Your task to perform on an android device: Show me productivity apps on the Play Store Image 0: 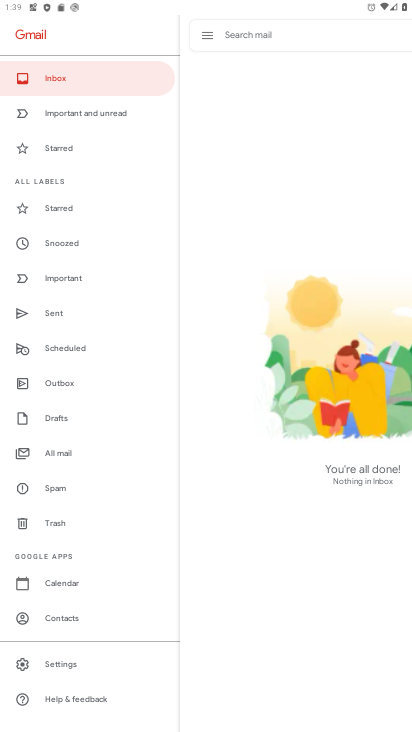
Step 0: press home button
Your task to perform on an android device: Show me productivity apps on the Play Store Image 1: 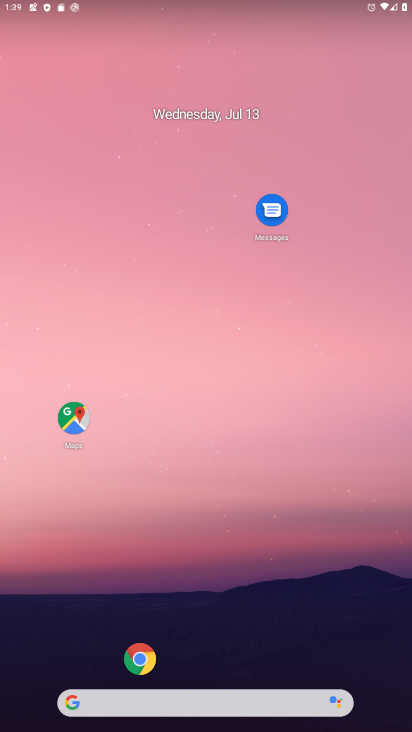
Step 1: drag from (35, 689) to (339, 103)
Your task to perform on an android device: Show me productivity apps on the Play Store Image 2: 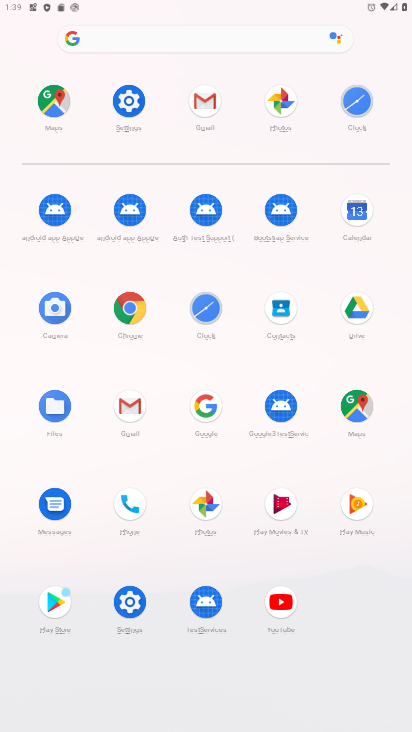
Step 2: click (57, 607)
Your task to perform on an android device: Show me productivity apps on the Play Store Image 3: 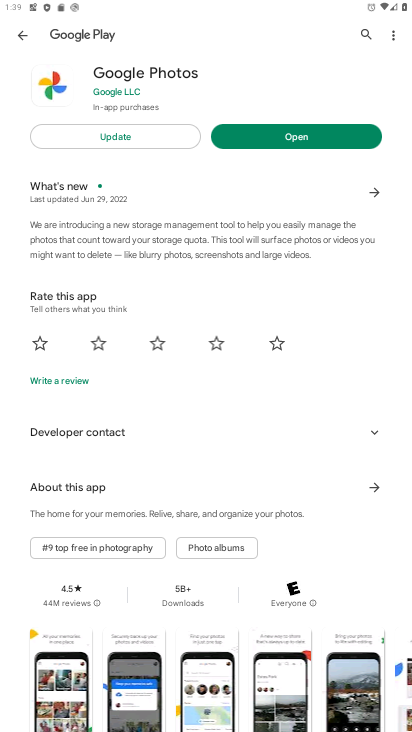
Step 3: click (28, 25)
Your task to perform on an android device: Show me productivity apps on the Play Store Image 4: 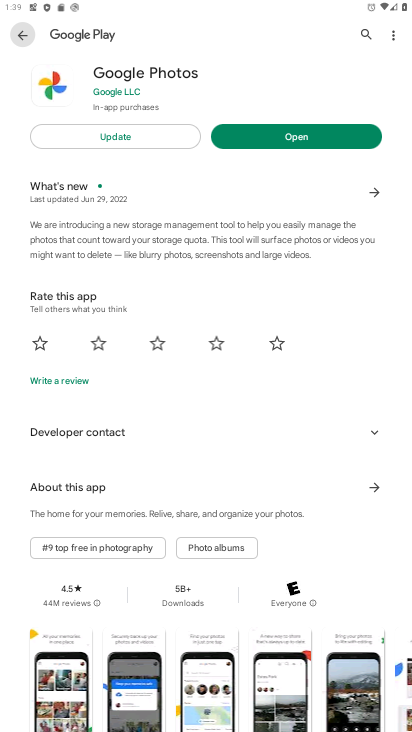
Step 4: click (6, 46)
Your task to perform on an android device: Show me productivity apps on the Play Store Image 5: 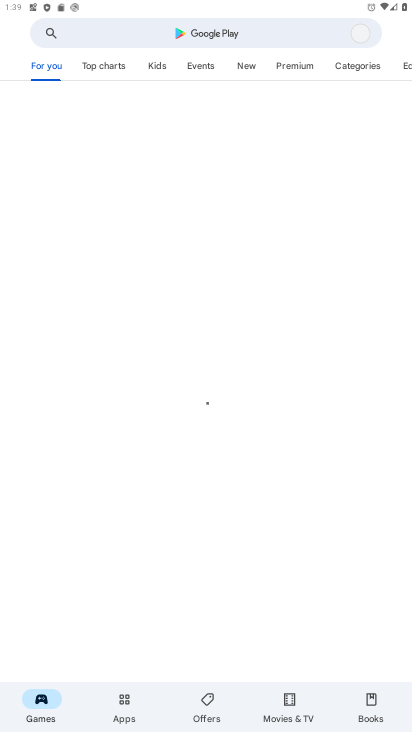
Step 5: click (16, 37)
Your task to perform on an android device: Show me productivity apps on the Play Store Image 6: 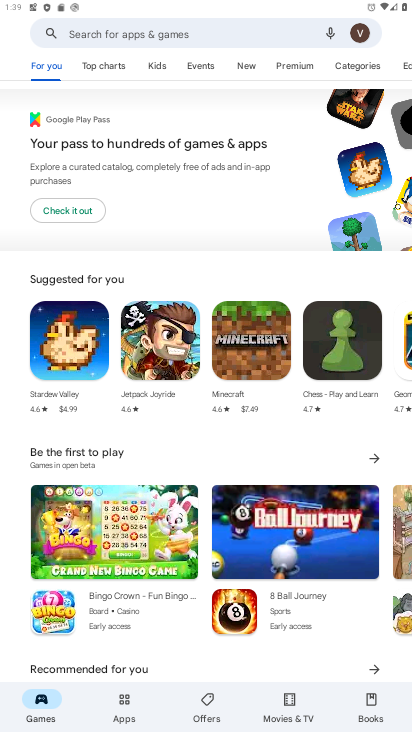
Step 6: click (101, 43)
Your task to perform on an android device: Show me productivity apps on the Play Store Image 7: 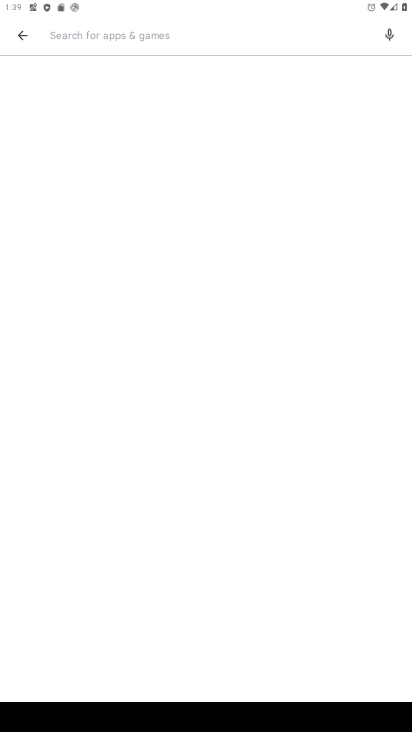
Step 7: type " productivity apps "
Your task to perform on an android device: Show me productivity apps on the Play Store Image 8: 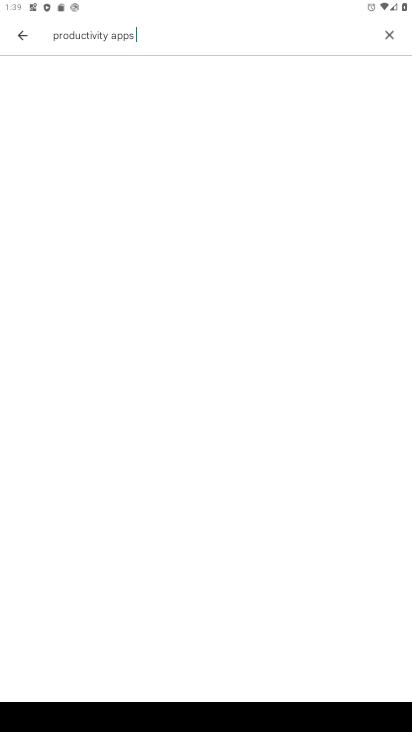
Step 8: type ""
Your task to perform on an android device: Show me productivity apps on the Play Store Image 9: 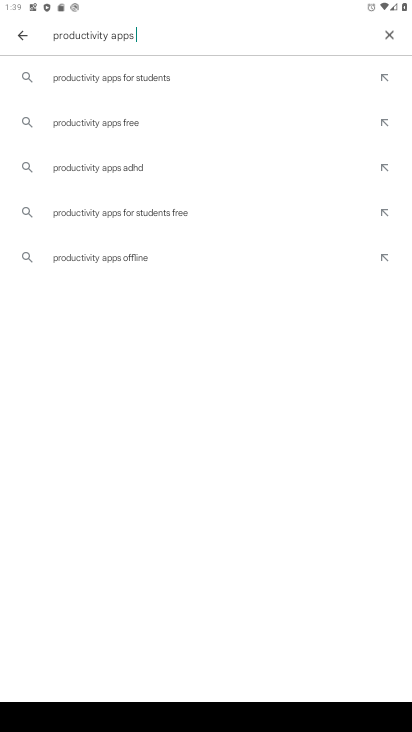
Step 9: type ""
Your task to perform on an android device: Show me productivity apps on the Play Store Image 10: 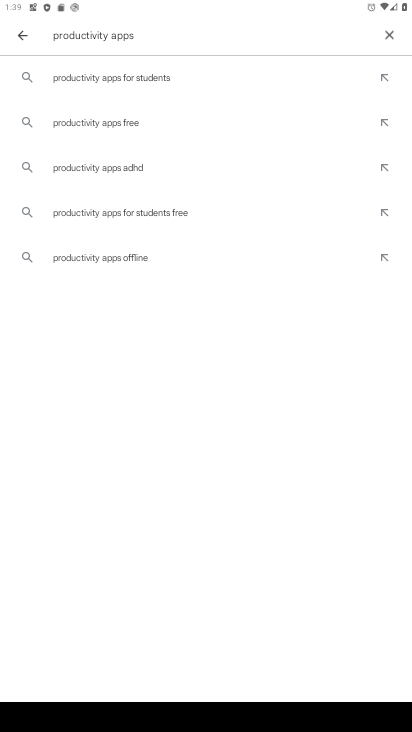
Step 10: type ""
Your task to perform on an android device: Show me productivity apps on the Play Store Image 11: 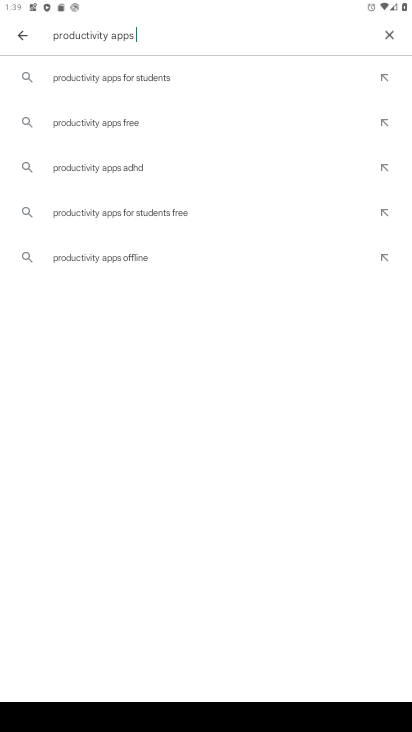
Step 11: type ""
Your task to perform on an android device: Show me productivity apps on the Play Store Image 12: 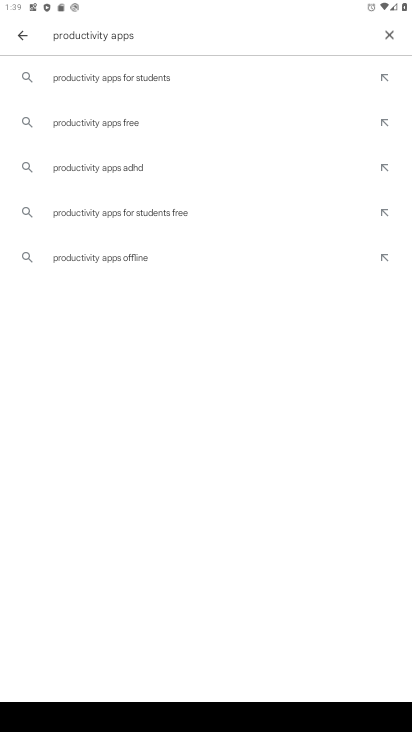
Step 12: task complete